Your task to perform on an android device: Go to location settings Image 0: 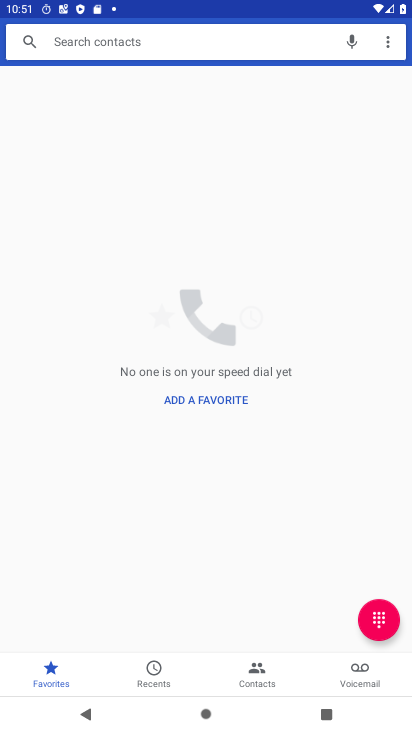
Step 0: press home button
Your task to perform on an android device: Go to location settings Image 1: 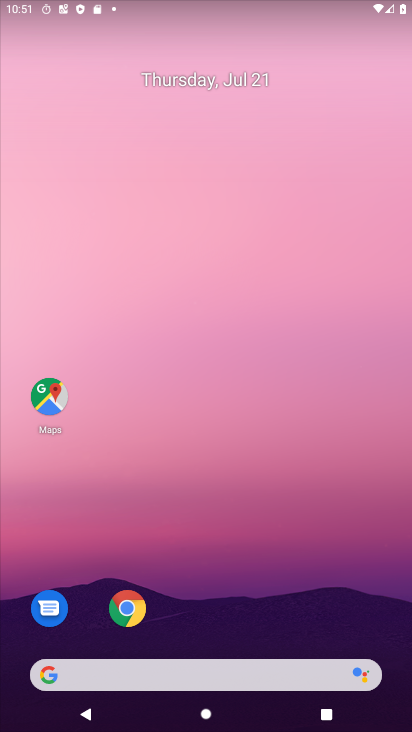
Step 1: drag from (184, 503) to (261, 146)
Your task to perform on an android device: Go to location settings Image 2: 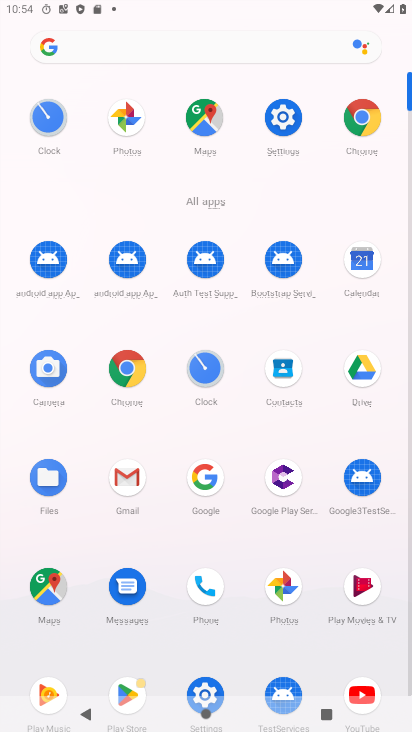
Step 2: click (279, 114)
Your task to perform on an android device: Go to location settings Image 3: 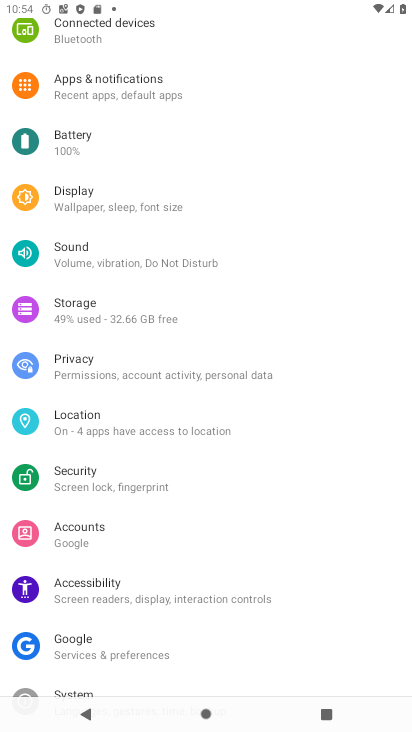
Step 3: click (82, 442)
Your task to perform on an android device: Go to location settings Image 4: 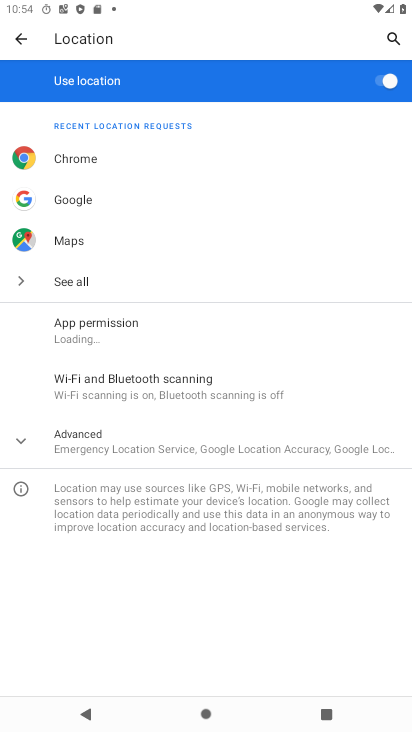
Step 4: task complete